Your task to perform on an android device: Open internet settings Image 0: 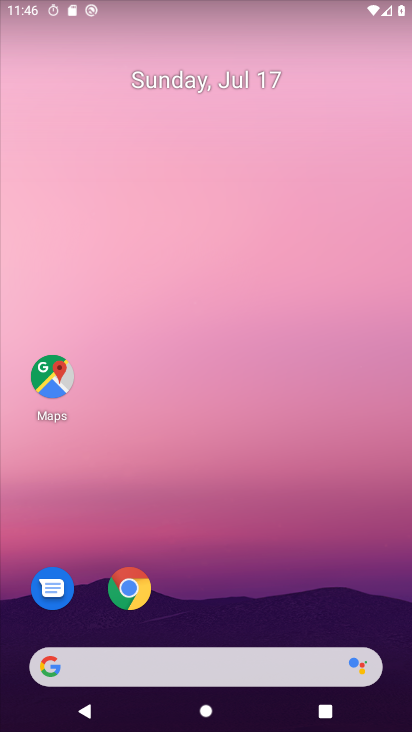
Step 0: drag from (318, 621) to (239, 106)
Your task to perform on an android device: Open internet settings Image 1: 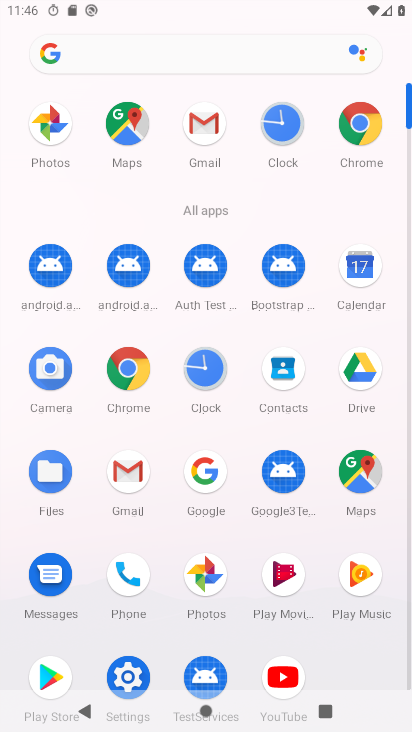
Step 1: click (128, 678)
Your task to perform on an android device: Open internet settings Image 2: 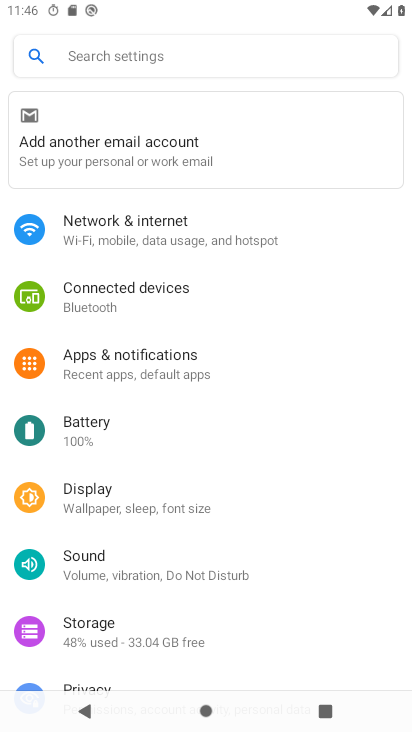
Step 2: click (314, 237)
Your task to perform on an android device: Open internet settings Image 3: 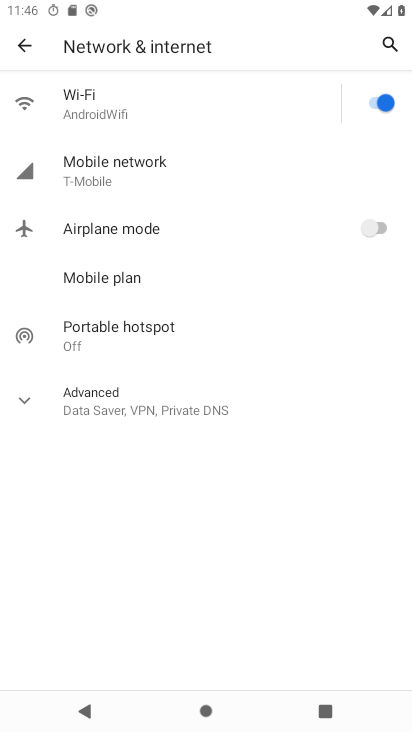
Step 3: task complete